Your task to perform on an android device: Search for Italian restaurants on Maps Image 0: 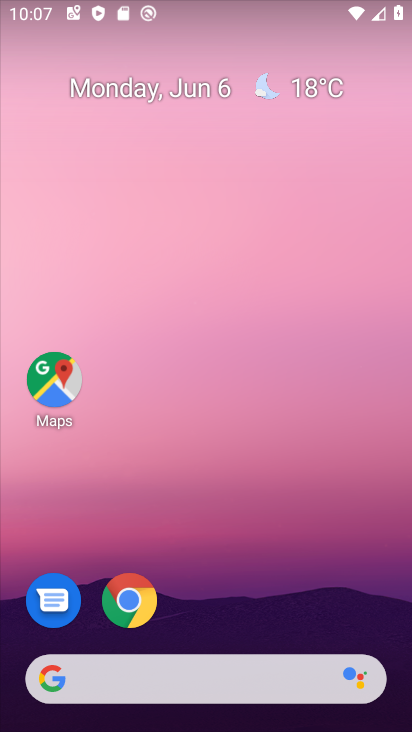
Step 0: drag from (214, 554) to (202, 69)
Your task to perform on an android device: Search for Italian restaurants on Maps Image 1: 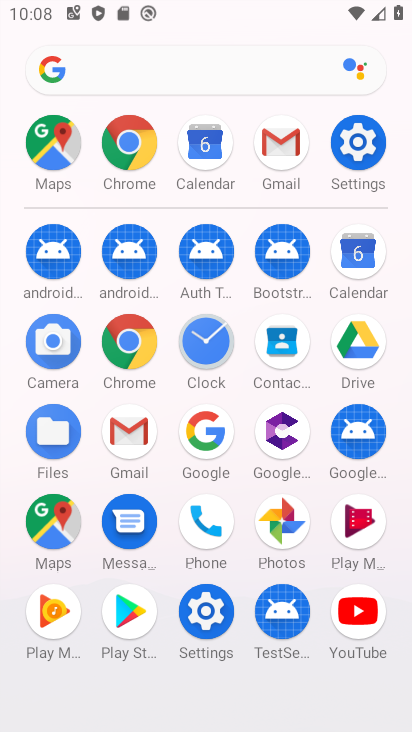
Step 1: click (52, 516)
Your task to perform on an android device: Search for Italian restaurants on Maps Image 2: 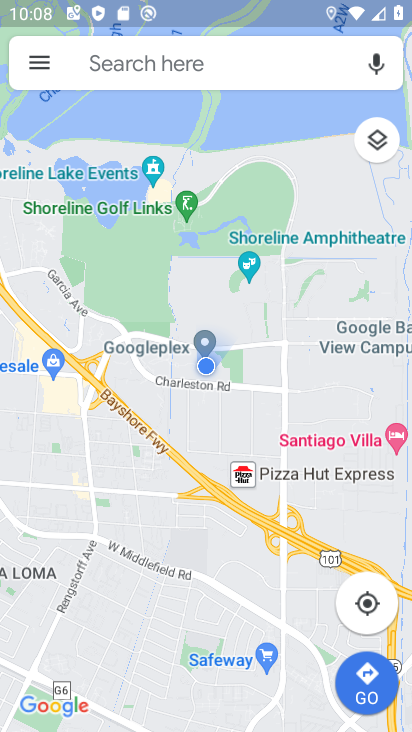
Step 2: click (44, 66)
Your task to perform on an android device: Search for Italian restaurants on Maps Image 3: 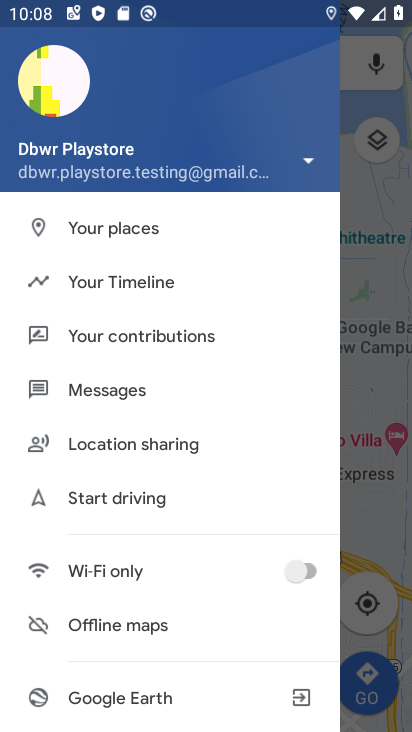
Step 3: click (379, 349)
Your task to perform on an android device: Search for Italian restaurants on Maps Image 4: 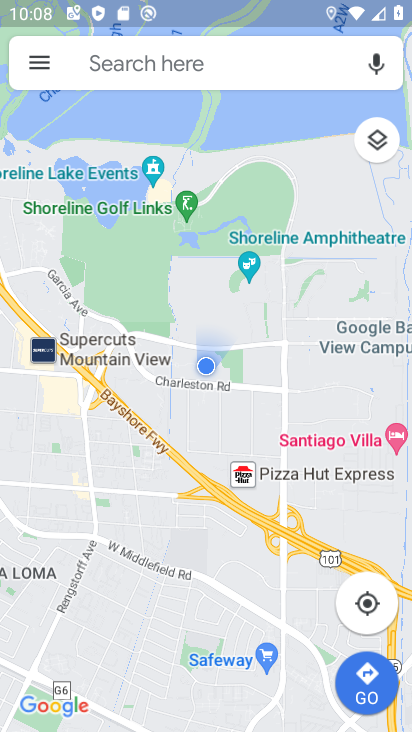
Step 4: click (252, 58)
Your task to perform on an android device: Search for Italian restaurants on Maps Image 5: 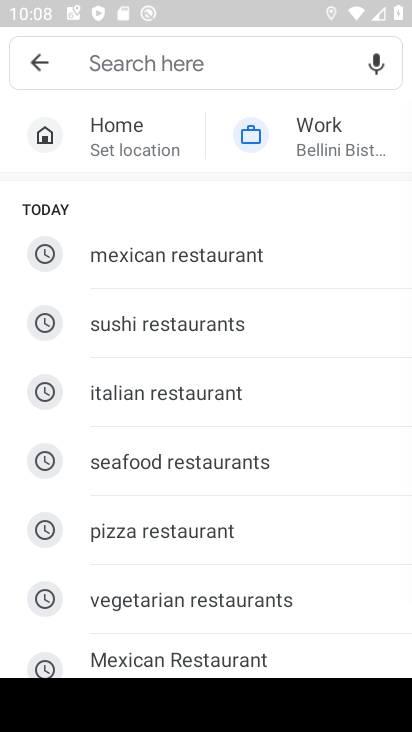
Step 5: click (253, 365)
Your task to perform on an android device: Search for Italian restaurants on Maps Image 6: 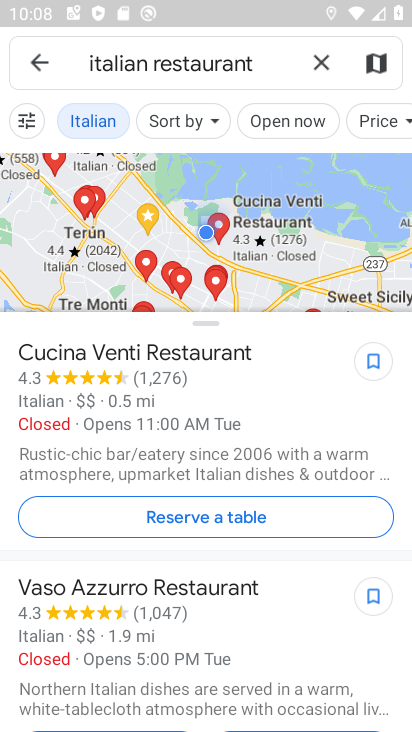
Step 6: task complete